Your task to perform on an android device: turn off improve location accuracy Image 0: 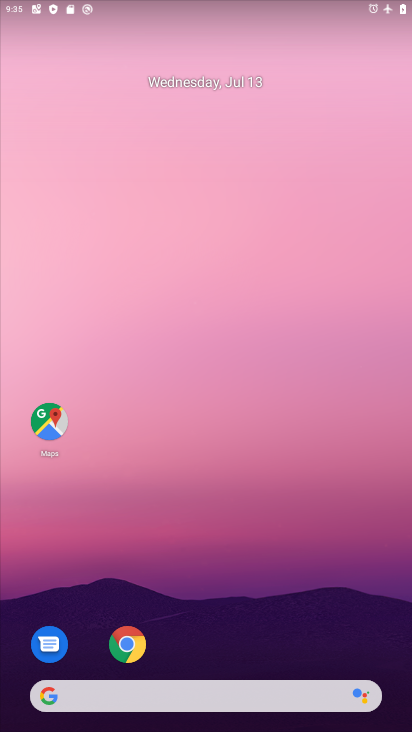
Step 0: drag from (226, 694) to (212, 196)
Your task to perform on an android device: turn off improve location accuracy Image 1: 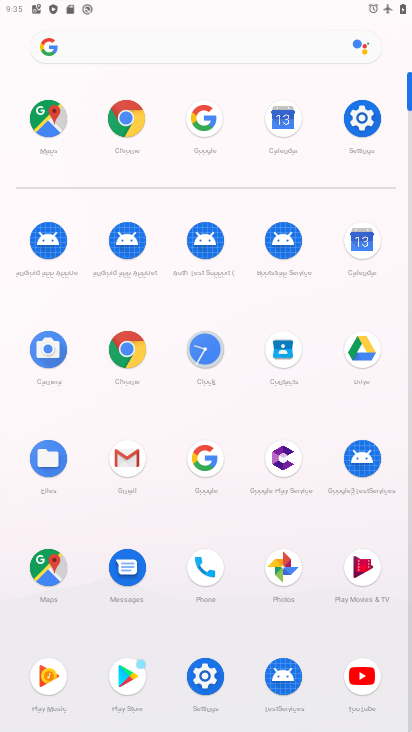
Step 1: click (360, 123)
Your task to perform on an android device: turn off improve location accuracy Image 2: 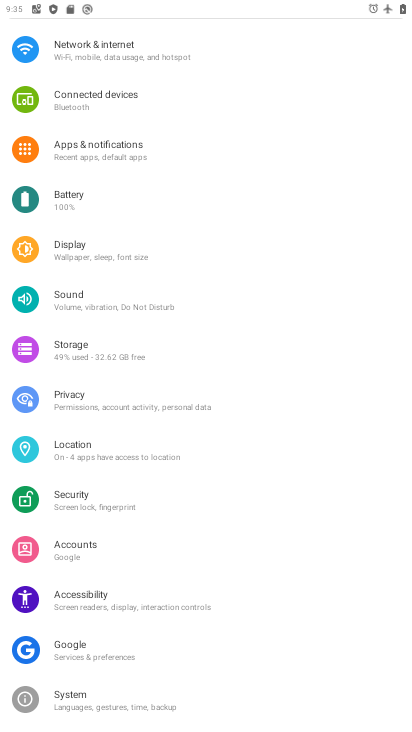
Step 2: click (88, 458)
Your task to perform on an android device: turn off improve location accuracy Image 3: 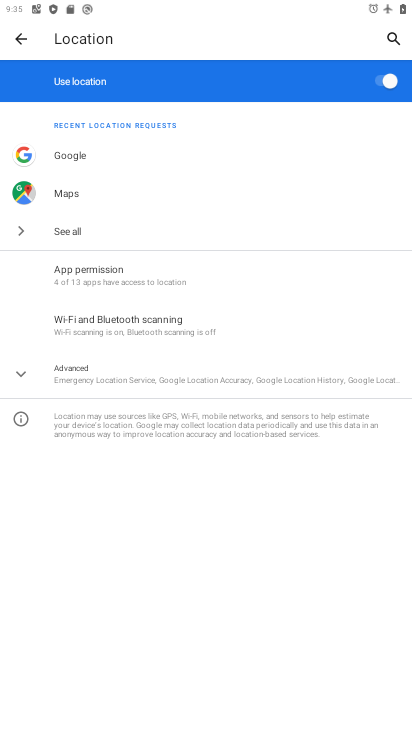
Step 3: click (111, 381)
Your task to perform on an android device: turn off improve location accuracy Image 4: 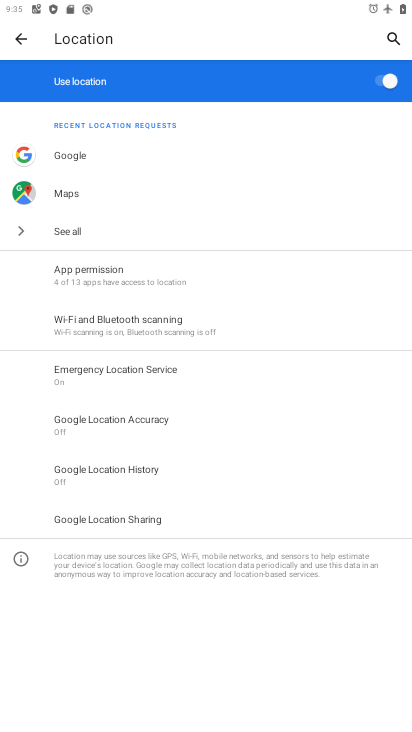
Step 4: click (122, 420)
Your task to perform on an android device: turn off improve location accuracy Image 5: 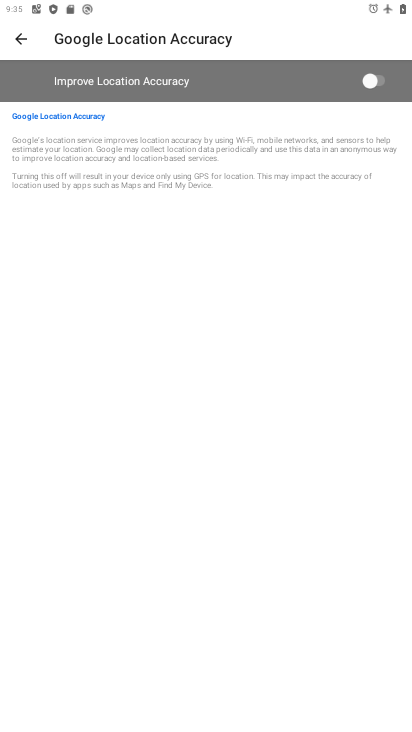
Step 5: task complete